Your task to perform on an android device: open chrome and create a bookmark for the current page Image 0: 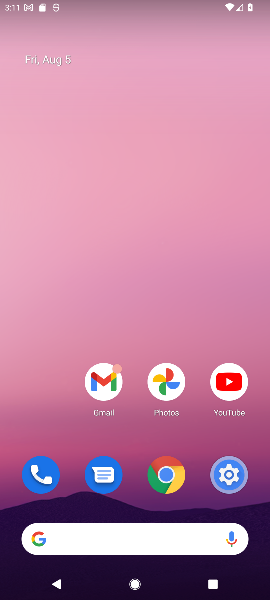
Step 0: click (168, 476)
Your task to perform on an android device: open chrome and create a bookmark for the current page Image 1: 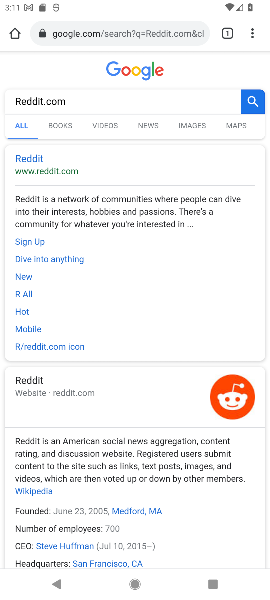
Step 1: click (252, 27)
Your task to perform on an android device: open chrome and create a bookmark for the current page Image 2: 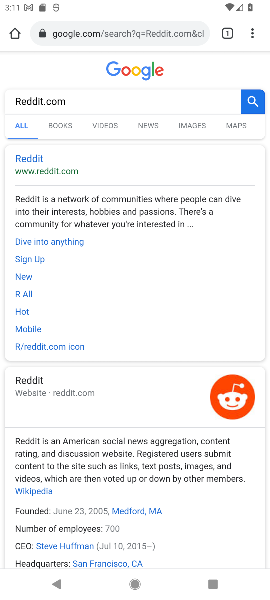
Step 2: click (252, 31)
Your task to perform on an android device: open chrome and create a bookmark for the current page Image 3: 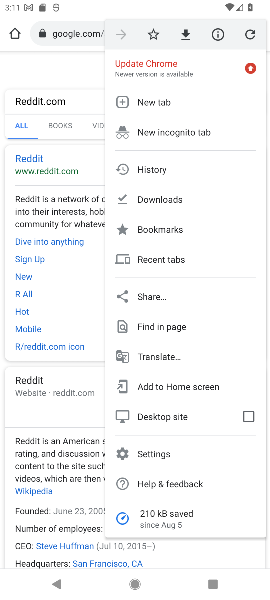
Step 3: click (152, 36)
Your task to perform on an android device: open chrome and create a bookmark for the current page Image 4: 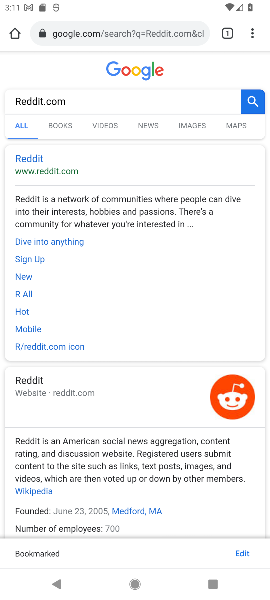
Step 4: task complete